Your task to perform on an android device: Go to display settings Image 0: 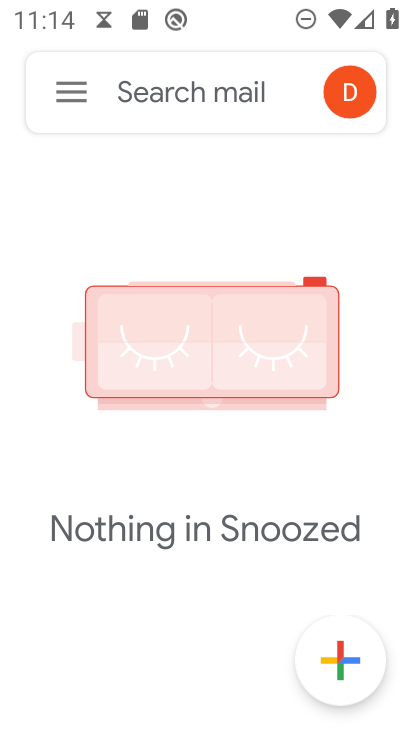
Step 0: press home button
Your task to perform on an android device: Go to display settings Image 1: 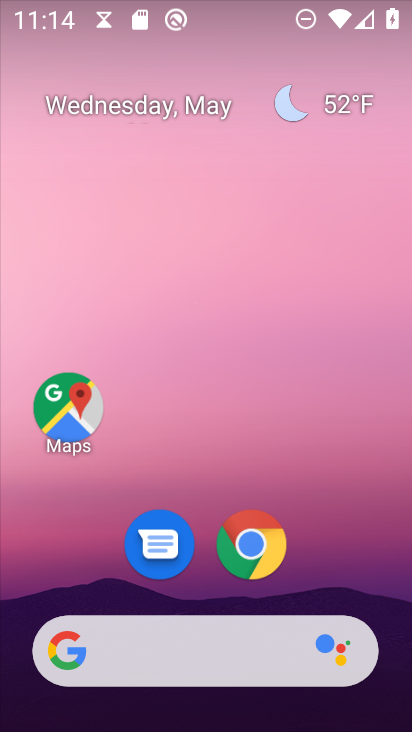
Step 1: drag from (199, 585) to (200, 95)
Your task to perform on an android device: Go to display settings Image 2: 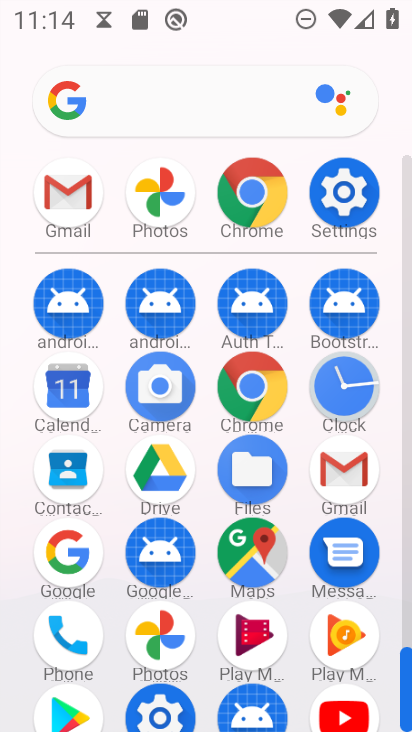
Step 2: click (371, 147)
Your task to perform on an android device: Go to display settings Image 3: 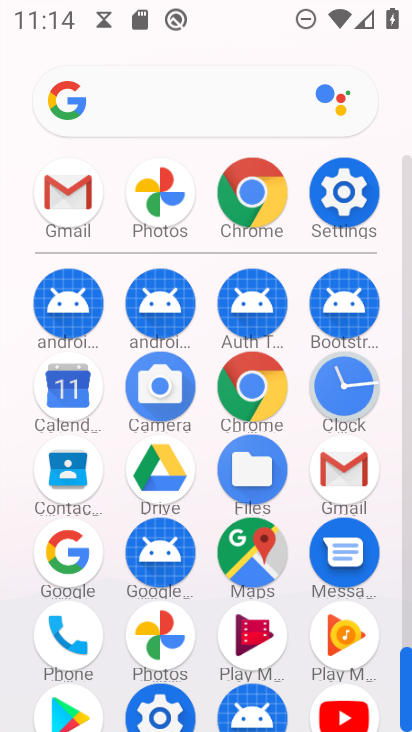
Step 3: click (357, 184)
Your task to perform on an android device: Go to display settings Image 4: 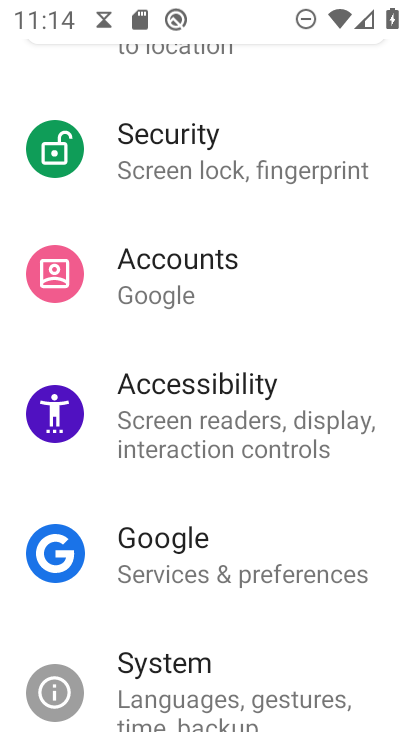
Step 4: drag from (151, 654) to (196, 165)
Your task to perform on an android device: Go to display settings Image 5: 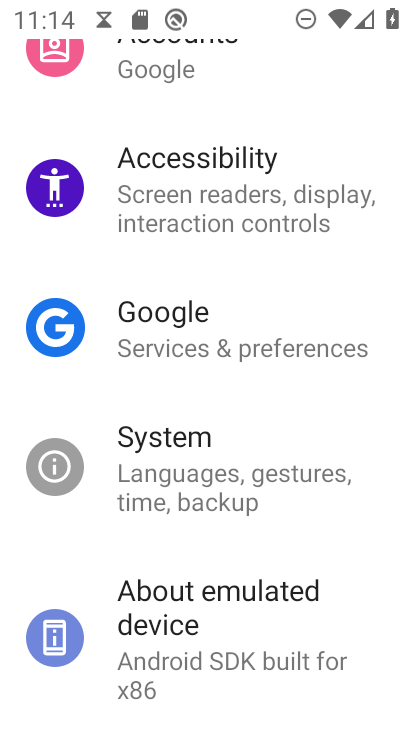
Step 5: drag from (243, 155) to (232, 651)
Your task to perform on an android device: Go to display settings Image 6: 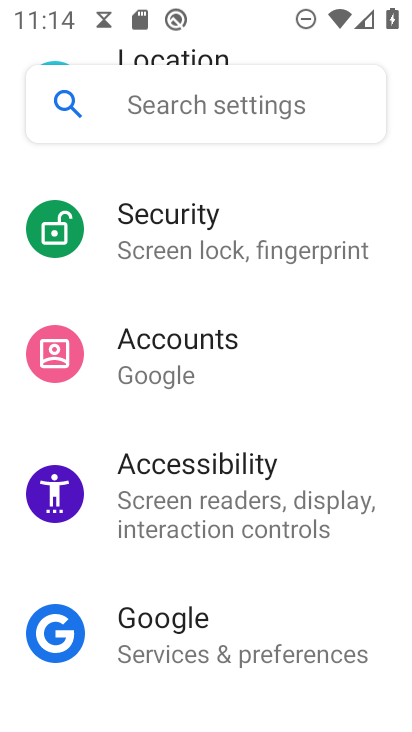
Step 6: drag from (221, 203) to (239, 690)
Your task to perform on an android device: Go to display settings Image 7: 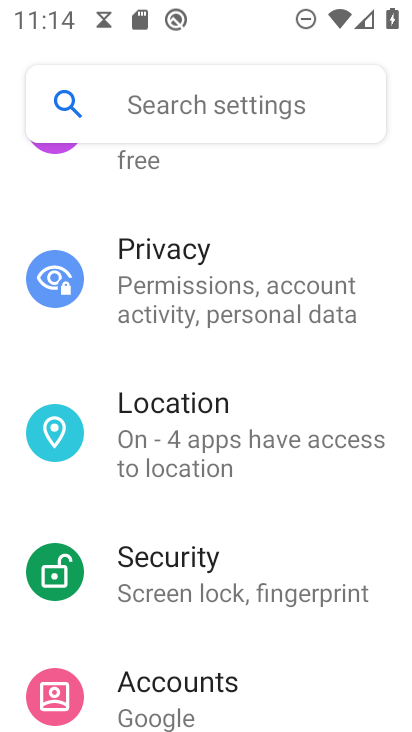
Step 7: drag from (198, 322) to (207, 692)
Your task to perform on an android device: Go to display settings Image 8: 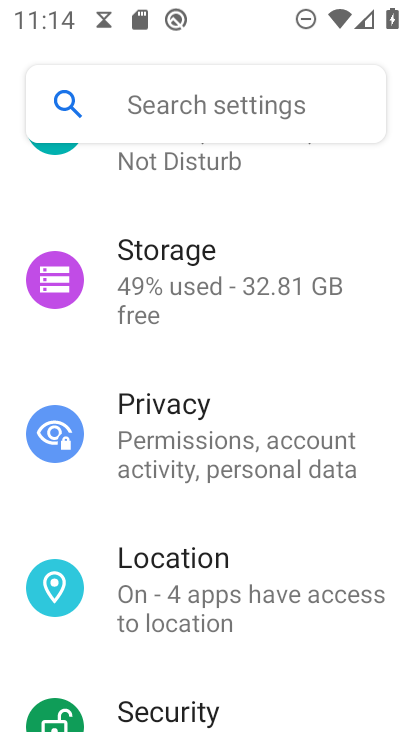
Step 8: drag from (198, 327) to (218, 629)
Your task to perform on an android device: Go to display settings Image 9: 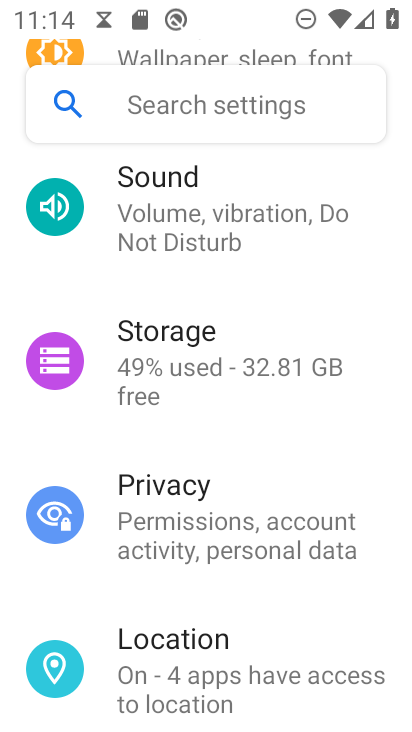
Step 9: drag from (208, 252) to (214, 550)
Your task to perform on an android device: Go to display settings Image 10: 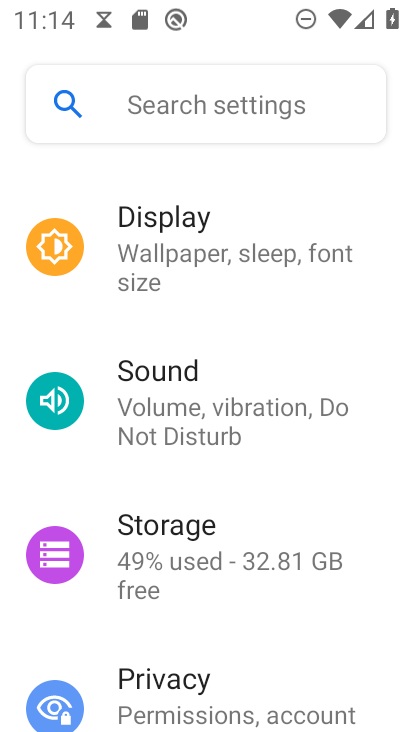
Step 10: click (185, 256)
Your task to perform on an android device: Go to display settings Image 11: 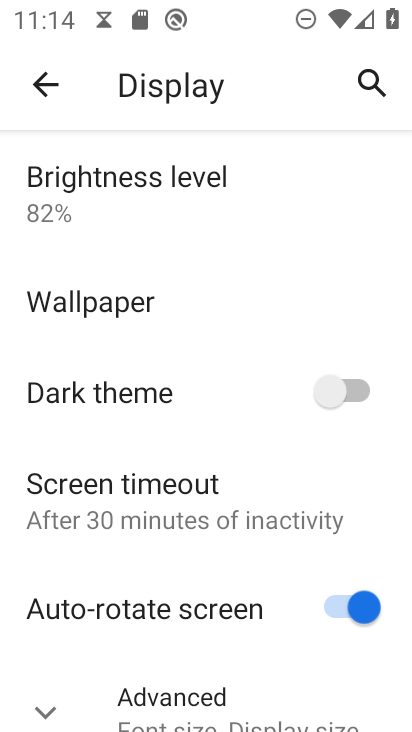
Step 11: task complete